Your task to perform on an android device: check google app version Image 0: 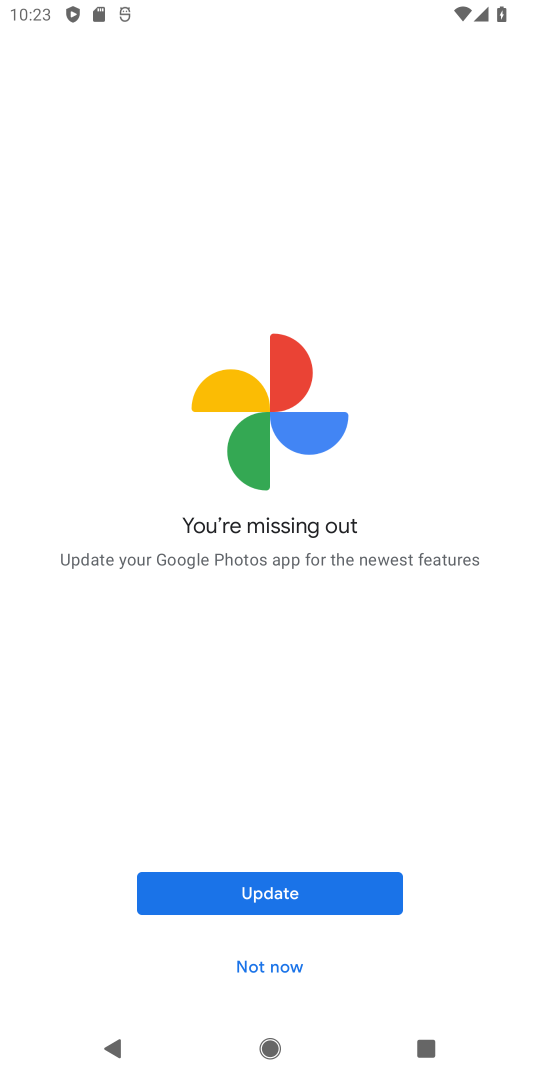
Step 0: press back button
Your task to perform on an android device: check google app version Image 1: 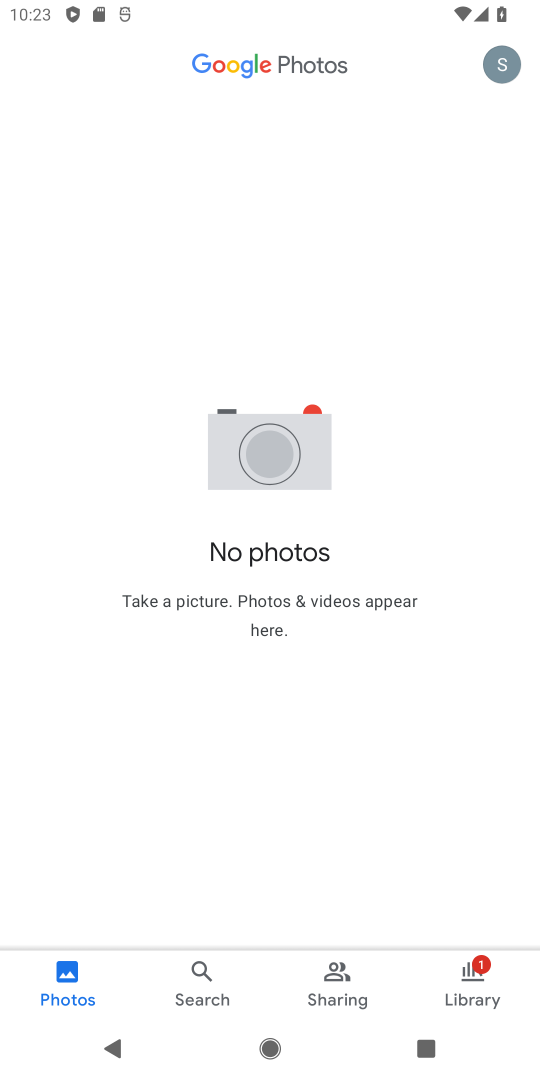
Step 1: press home button
Your task to perform on an android device: check google app version Image 2: 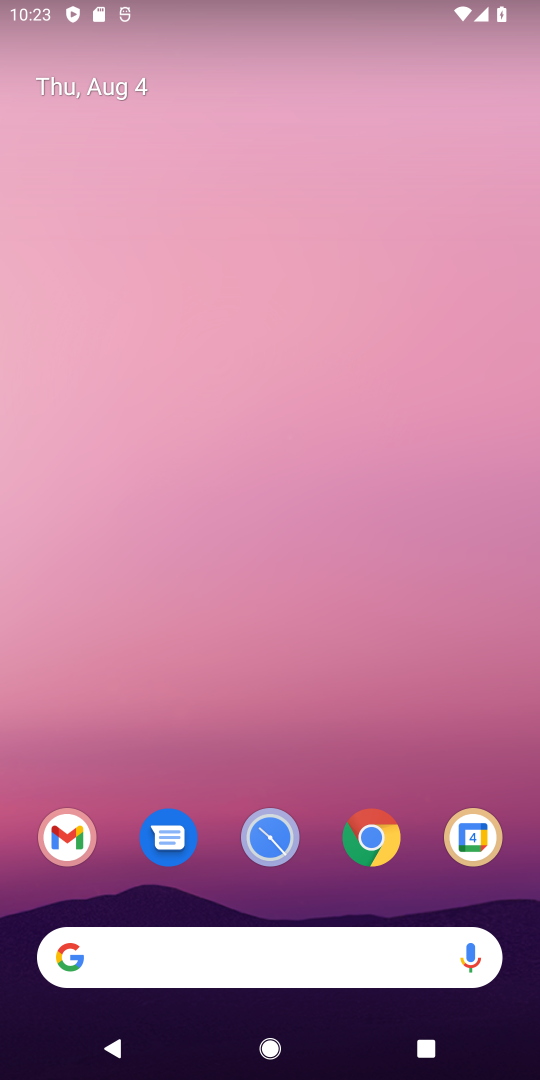
Step 2: drag from (398, 715) to (224, 66)
Your task to perform on an android device: check google app version Image 3: 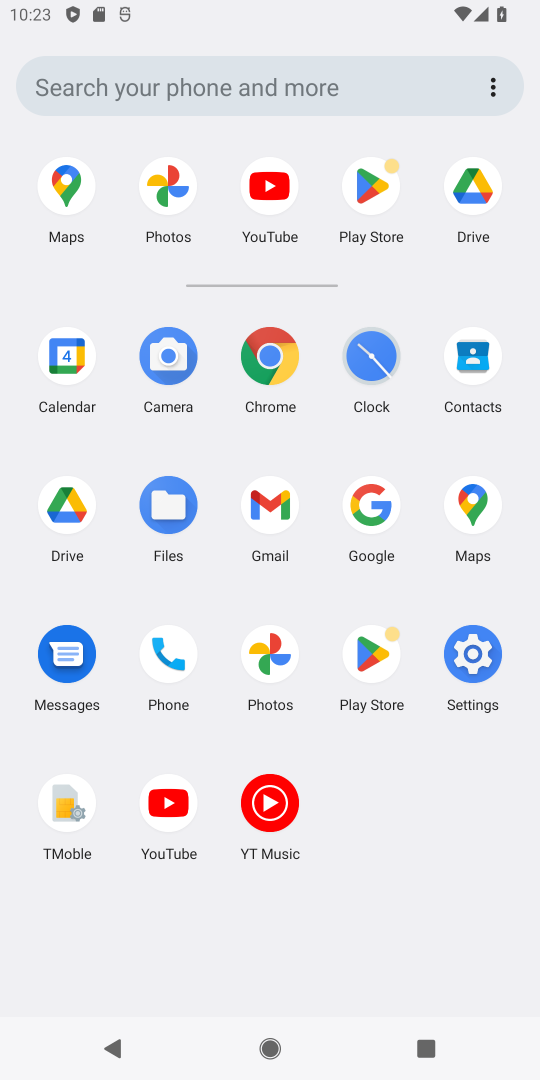
Step 3: click (358, 529)
Your task to perform on an android device: check google app version Image 4: 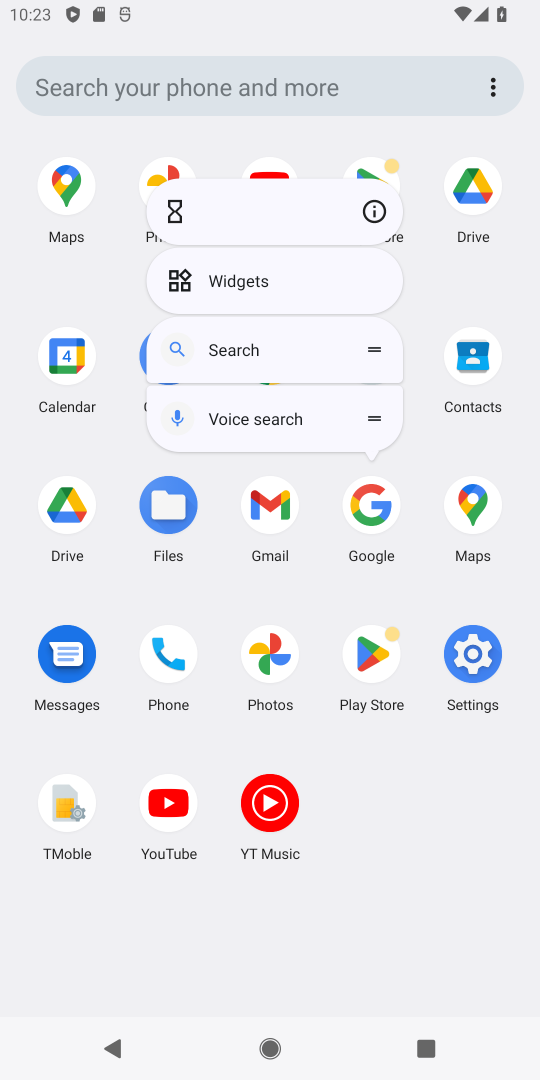
Step 4: click (375, 212)
Your task to perform on an android device: check google app version Image 5: 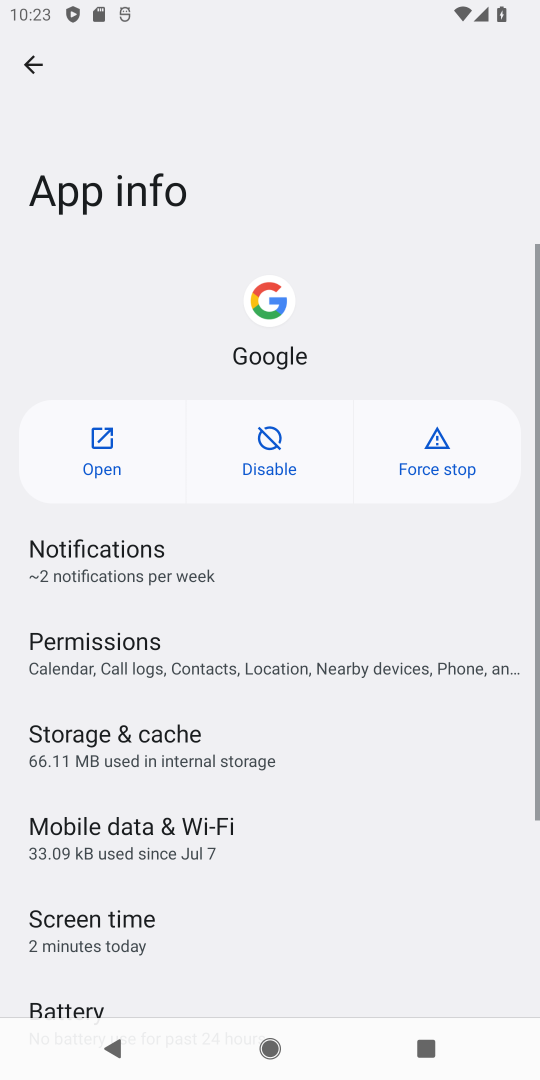
Step 5: task complete